Your task to perform on an android device: turn notification dots on Image 0: 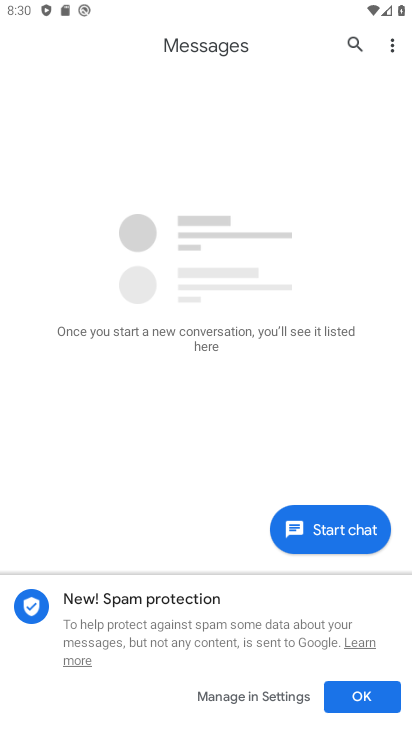
Step 0: press home button
Your task to perform on an android device: turn notification dots on Image 1: 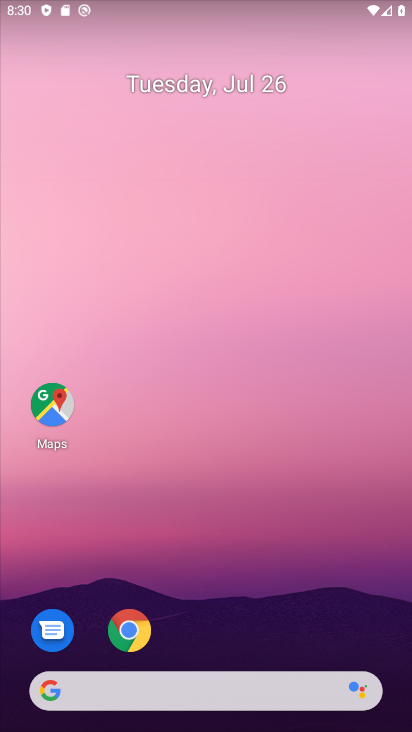
Step 1: drag from (344, 586) to (193, 11)
Your task to perform on an android device: turn notification dots on Image 2: 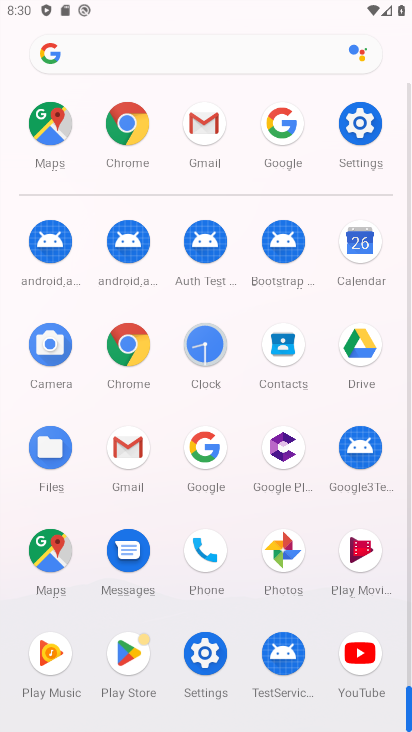
Step 2: click (359, 142)
Your task to perform on an android device: turn notification dots on Image 3: 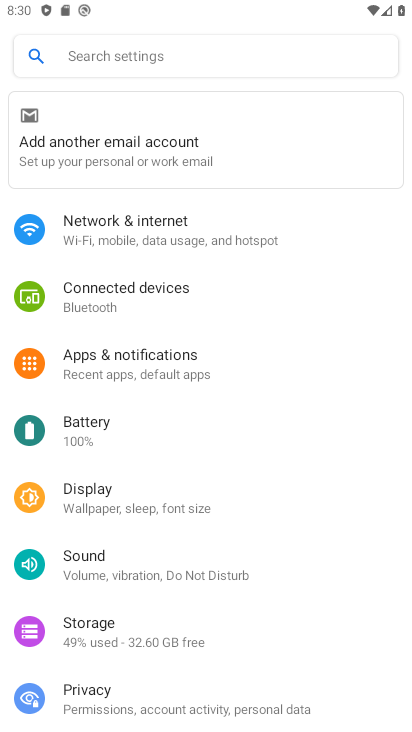
Step 3: click (180, 362)
Your task to perform on an android device: turn notification dots on Image 4: 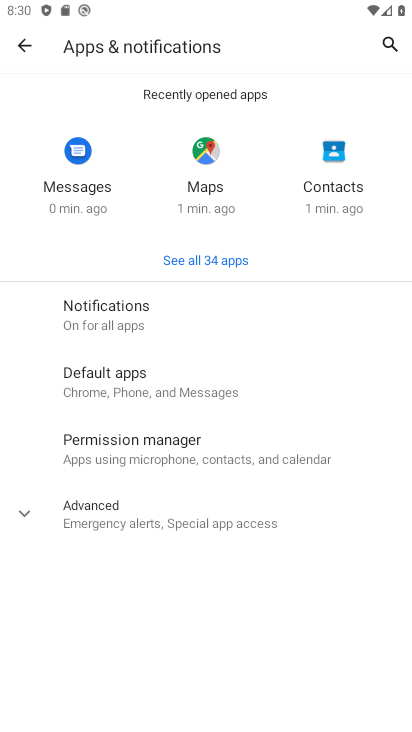
Step 4: click (158, 329)
Your task to perform on an android device: turn notification dots on Image 5: 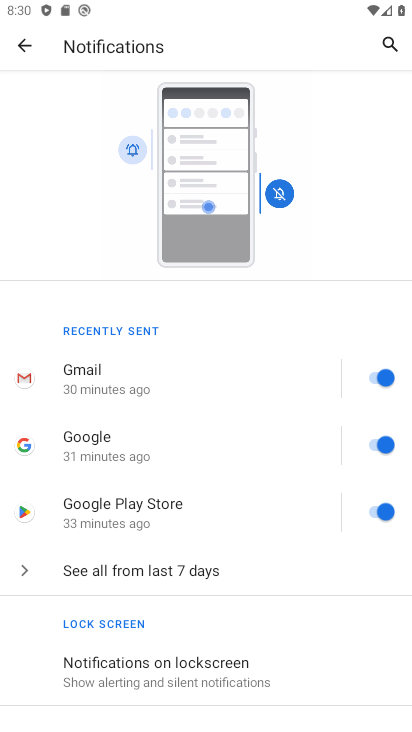
Step 5: drag from (253, 578) to (142, 154)
Your task to perform on an android device: turn notification dots on Image 6: 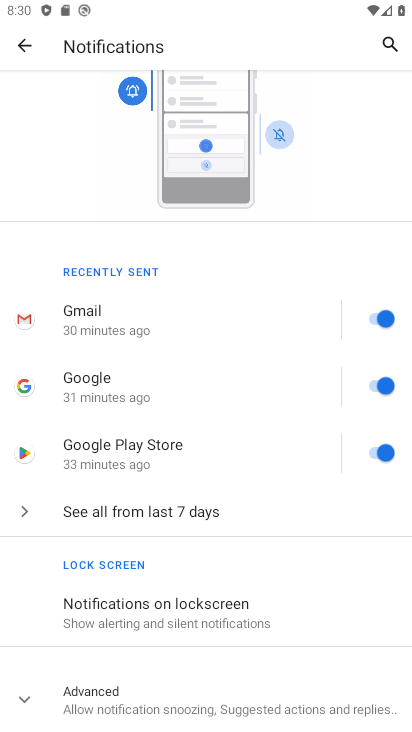
Step 6: click (203, 708)
Your task to perform on an android device: turn notification dots on Image 7: 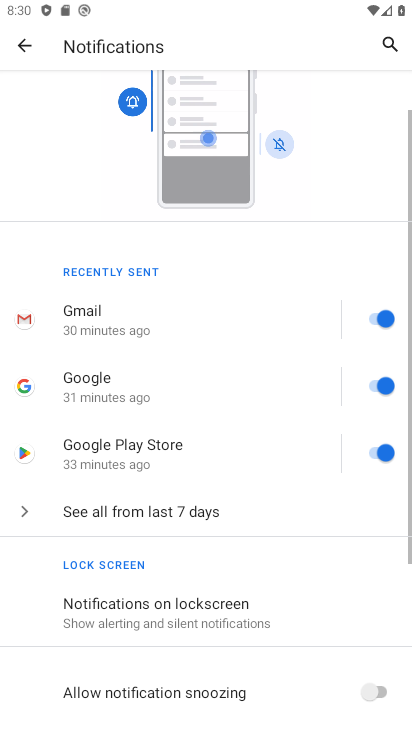
Step 7: task complete